Your task to perform on an android device: Open Google Maps and go to "Timeline" Image 0: 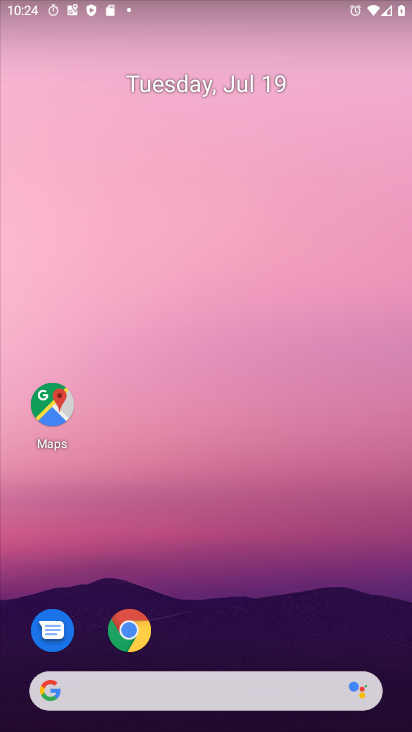
Step 0: press home button
Your task to perform on an android device: Open Google Maps and go to "Timeline" Image 1: 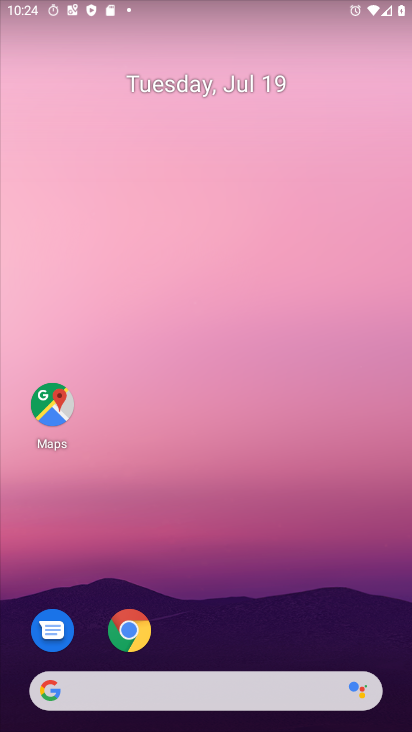
Step 1: click (35, 410)
Your task to perform on an android device: Open Google Maps and go to "Timeline" Image 2: 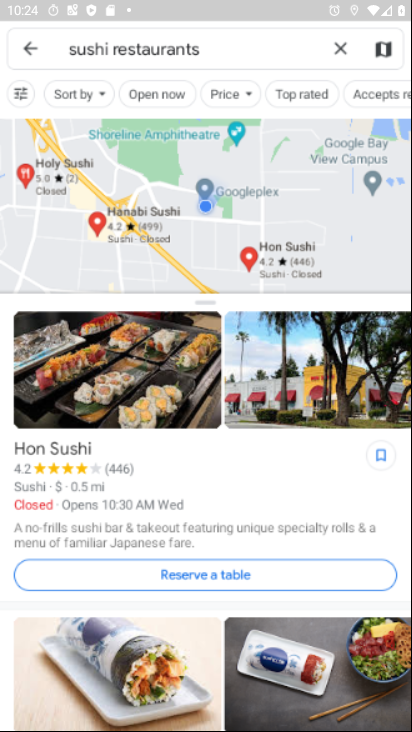
Step 2: click (22, 40)
Your task to perform on an android device: Open Google Maps and go to "Timeline" Image 3: 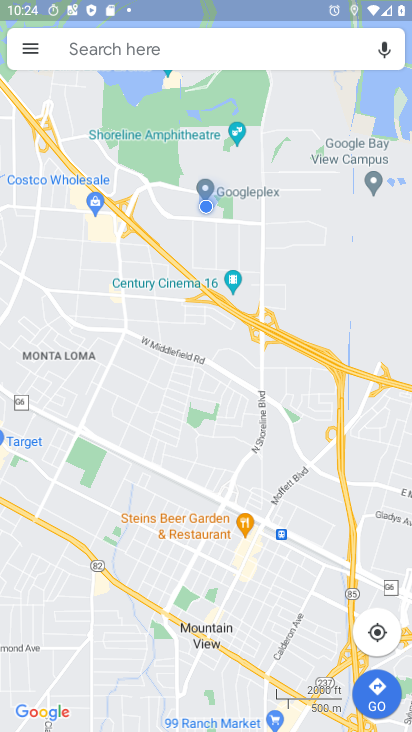
Step 3: click (24, 43)
Your task to perform on an android device: Open Google Maps and go to "Timeline" Image 4: 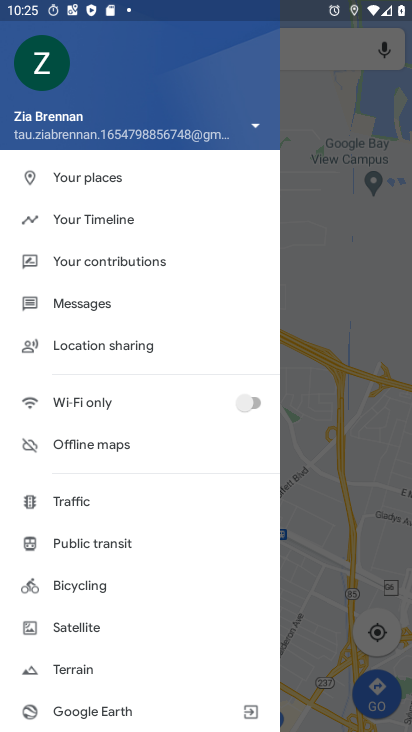
Step 4: click (101, 214)
Your task to perform on an android device: Open Google Maps and go to "Timeline" Image 5: 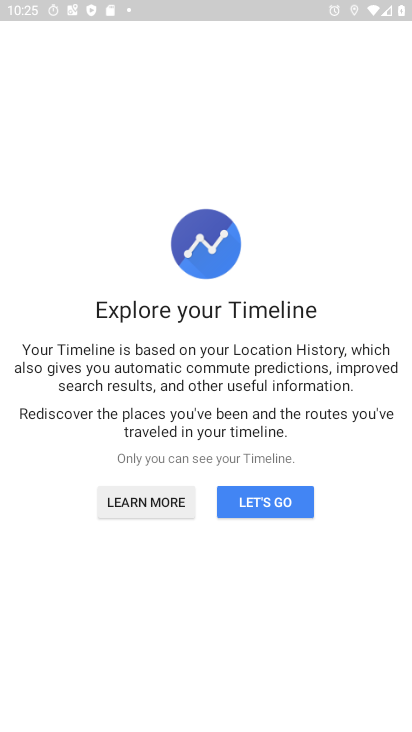
Step 5: click (260, 504)
Your task to perform on an android device: Open Google Maps and go to "Timeline" Image 6: 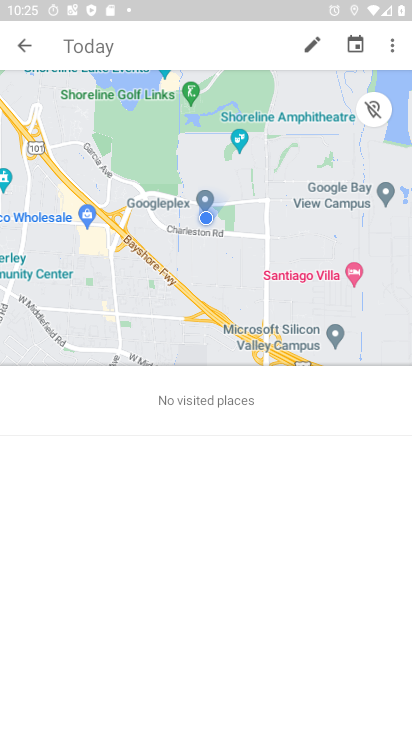
Step 6: task complete